Your task to perform on an android device: Search for Italian restaurants on Maps Image 0: 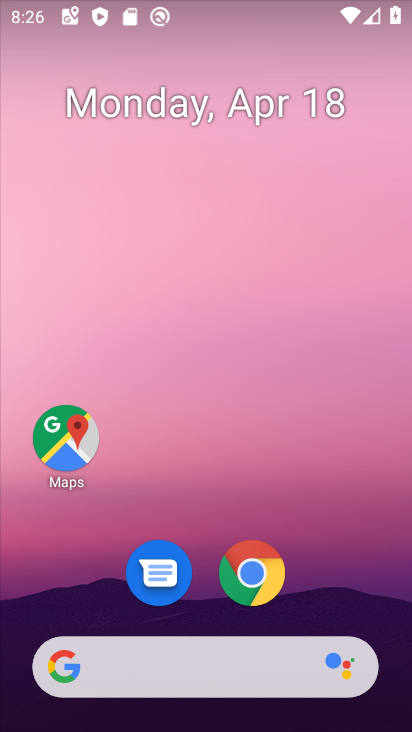
Step 0: click (66, 452)
Your task to perform on an android device: Search for Italian restaurants on Maps Image 1: 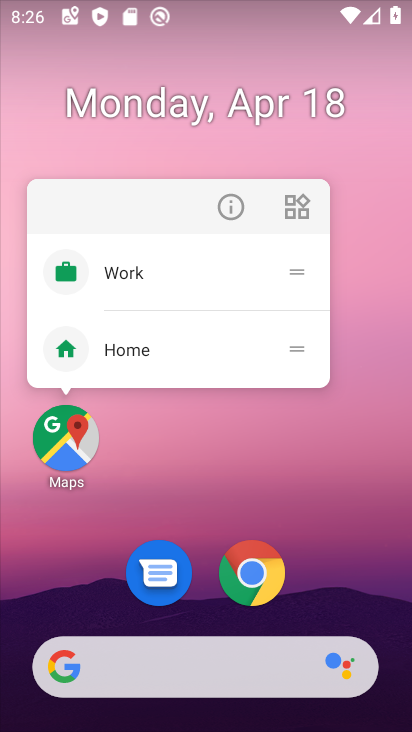
Step 1: click (77, 447)
Your task to perform on an android device: Search for Italian restaurants on Maps Image 2: 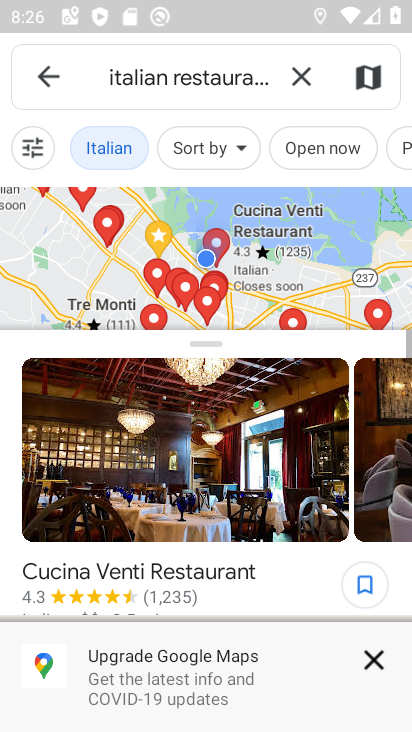
Step 2: click (213, 80)
Your task to perform on an android device: Search for Italian restaurants on Maps Image 3: 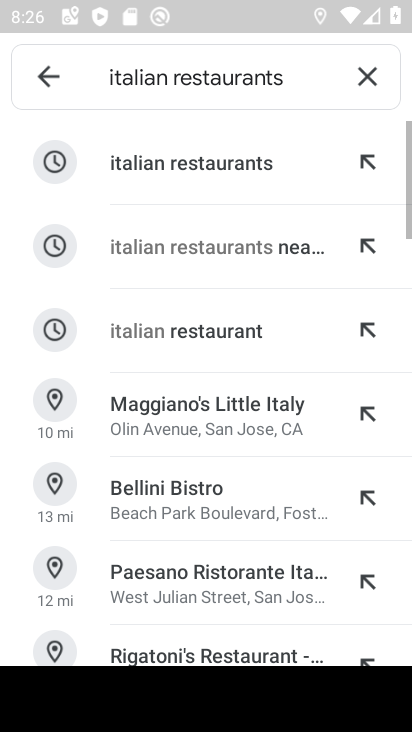
Step 3: click (252, 160)
Your task to perform on an android device: Search for Italian restaurants on Maps Image 4: 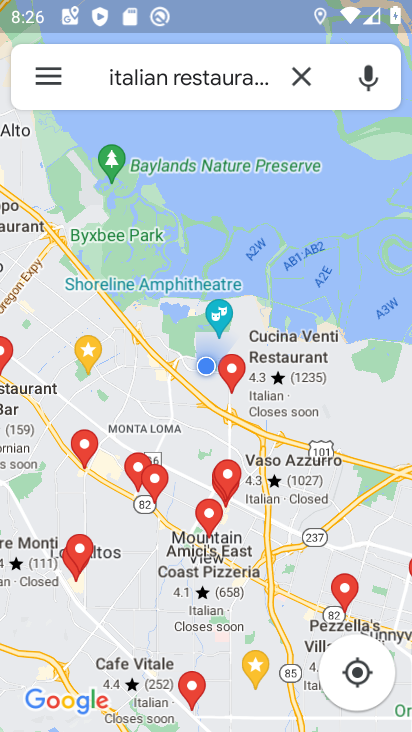
Step 4: task complete